Your task to perform on an android device: change notification settings in the gmail app Image 0: 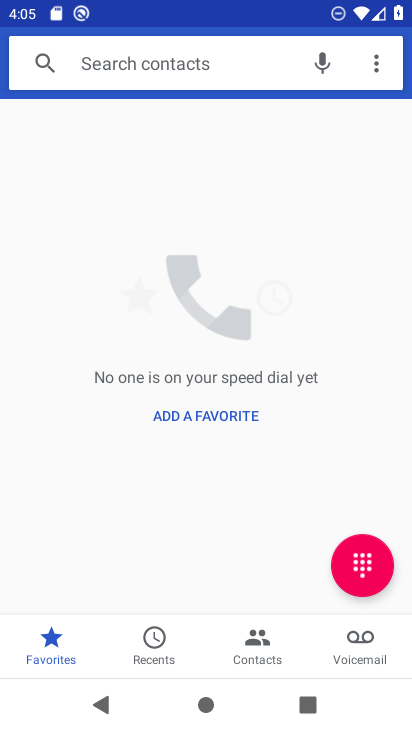
Step 0: press home button
Your task to perform on an android device: change notification settings in the gmail app Image 1: 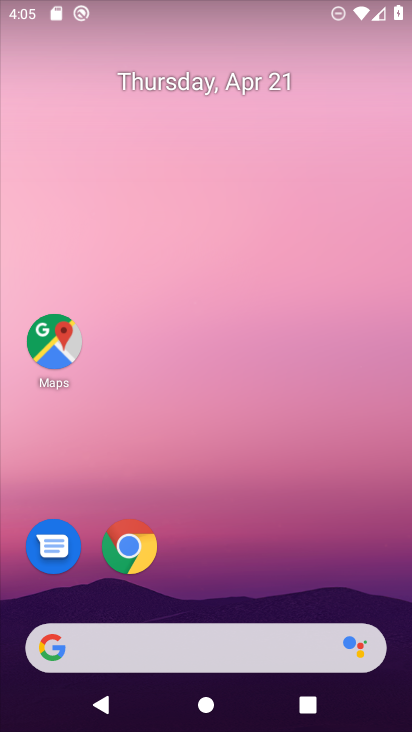
Step 1: drag from (194, 601) to (222, 132)
Your task to perform on an android device: change notification settings in the gmail app Image 2: 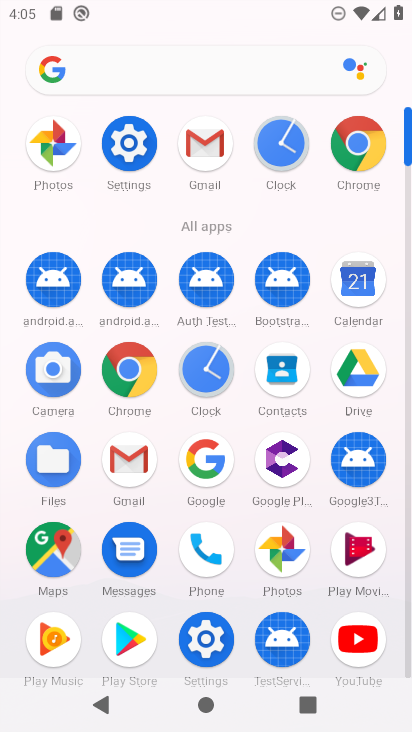
Step 2: click (208, 134)
Your task to perform on an android device: change notification settings in the gmail app Image 3: 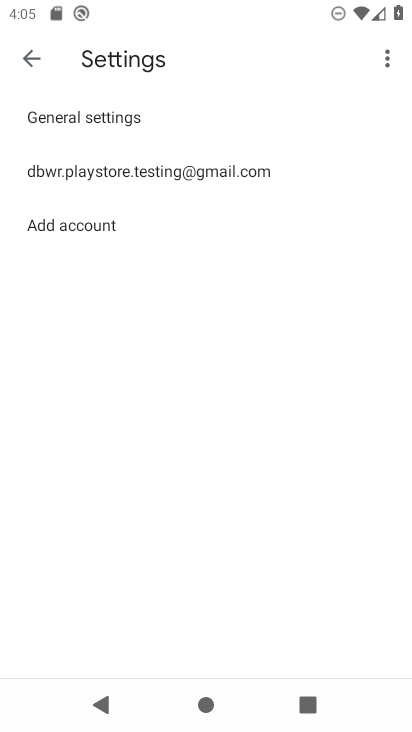
Step 3: click (162, 188)
Your task to perform on an android device: change notification settings in the gmail app Image 4: 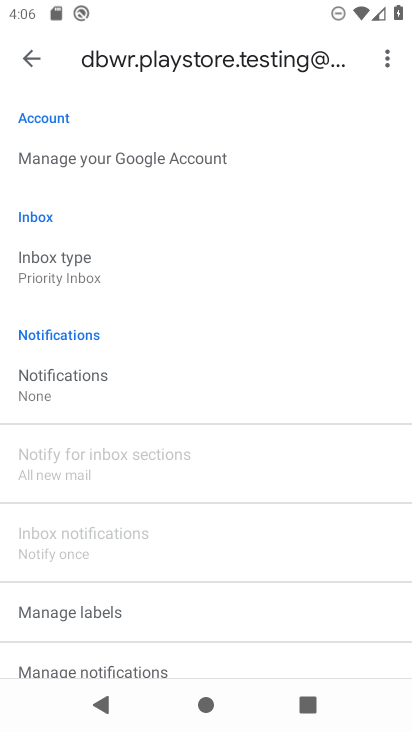
Step 4: click (14, 380)
Your task to perform on an android device: change notification settings in the gmail app Image 5: 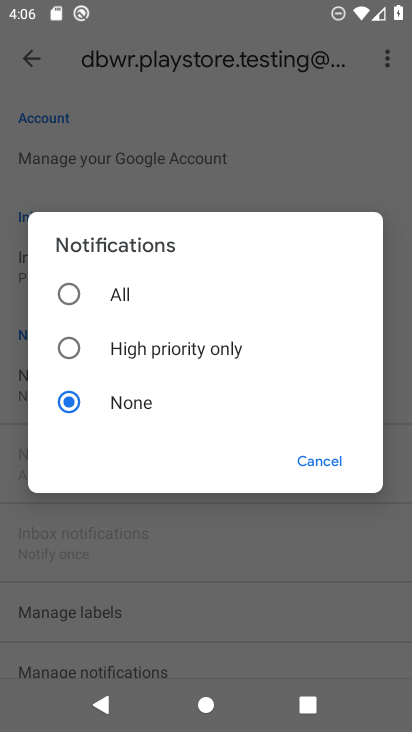
Step 5: click (195, 365)
Your task to perform on an android device: change notification settings in the gmail app Image 6: 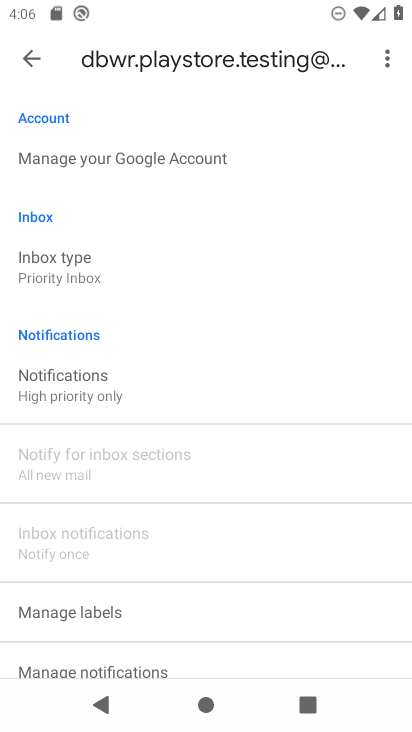
Step 6: task complete